Your task to perform on an android device: clear all cookies in the chrome app Image 0: 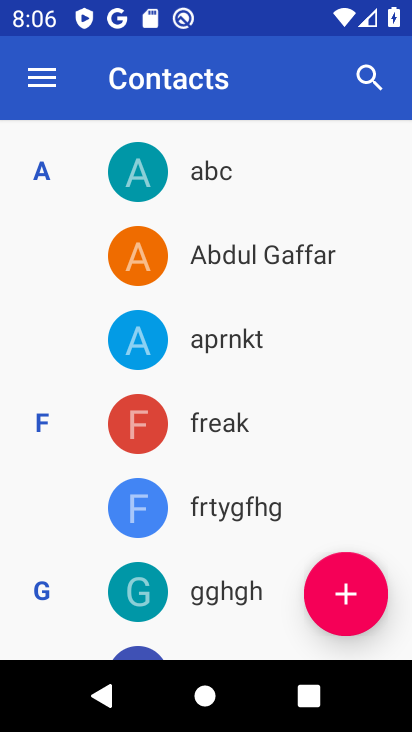
Step 0: press back button
Your task to perform on an android device: clear all cookies in the chrome app Image 1: 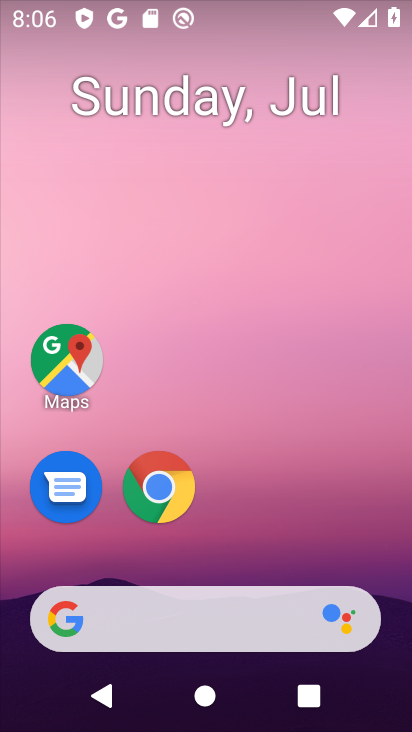
Step 1: click (177, 483)
Your task to perform on an android device: clear all cookies in the chrome app Image 2: 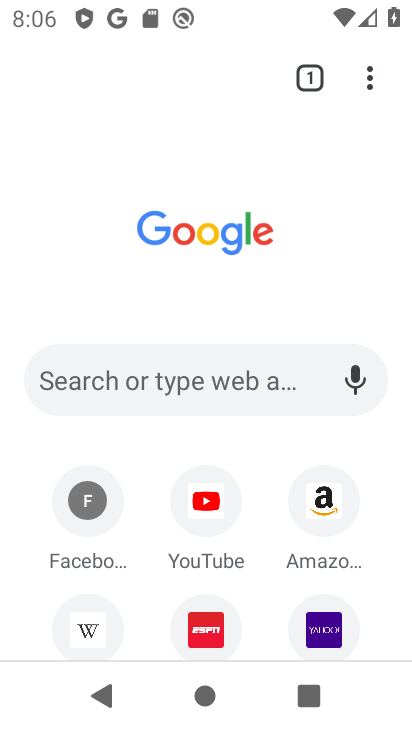
Step 2: drag from (370, 68) to (89, 530)
Your task to perform on an android device: clear all cookies in the chrome app Image 3: 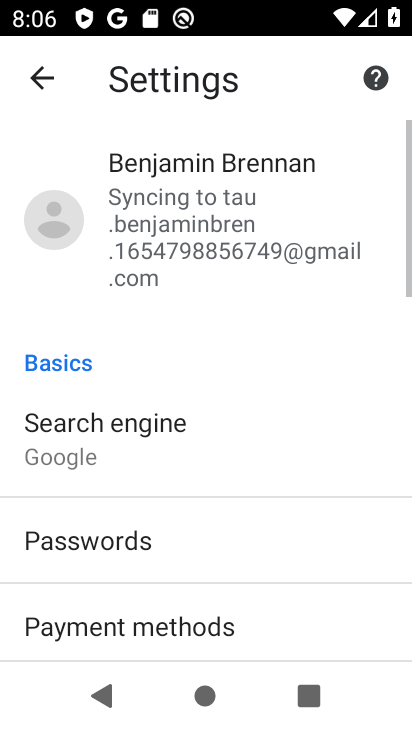
Step 3: click (26, 70)
Your task to perform on an android device: clear all cookies in the chrome app Image 4: 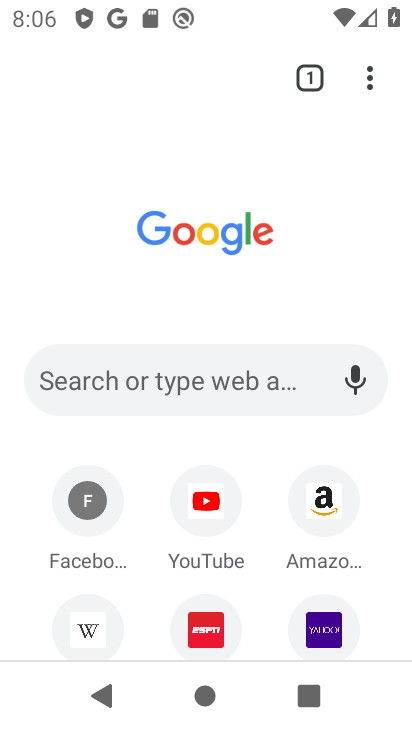
Step 4: drag from (373, 70) to (107, 452)
Your task to perform on an android device: clear all cookies in the chrome app Image 5: 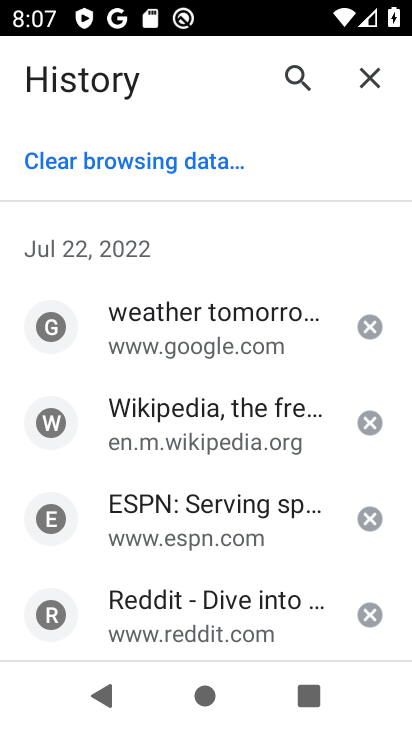
Step 5: click (97, 159)
Your task to perform on an android device: clear all cookies in the chrome app Image 6: 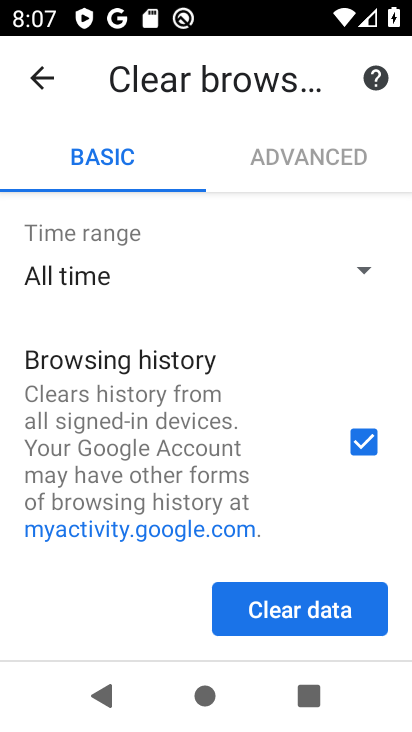
Step 6: drag from (172, 529) to (234, 377)
Your task to perform on an android device: clear all cookies in the chrome app Image 7: 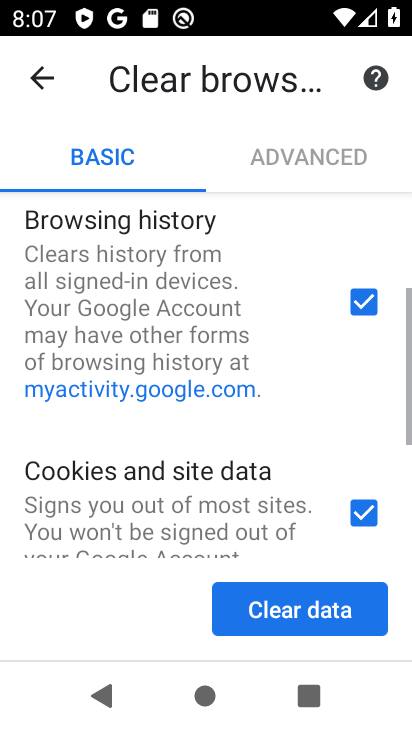
Step 7: click (361, 297)
Your task to perform on an android device: clear all cookies in the chrome app Image 8: 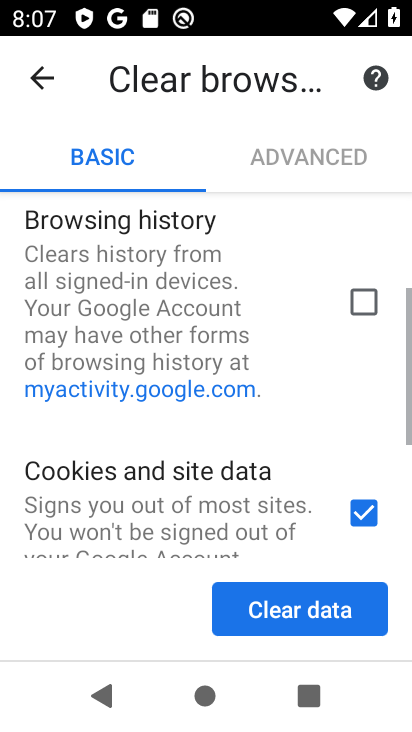
Step 8: drag from (121, 515) to (229, 169)
Your task to perform on an android device: clear all cookies in the chrome app Image 9: 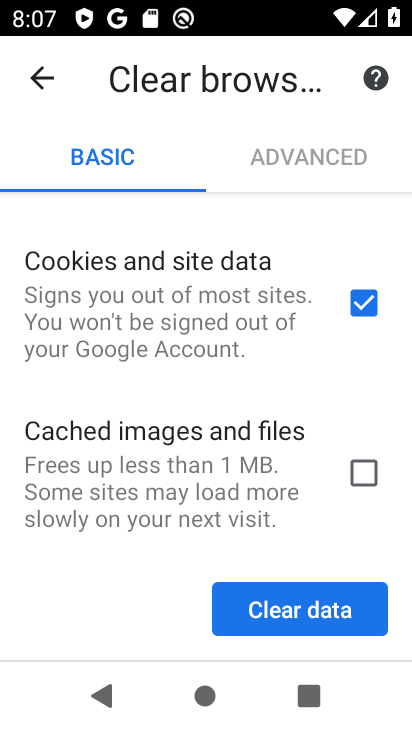
Step 9: click (289, 612)
Your task to perform on an android device: clear all cookies in the chrome app Image 10: 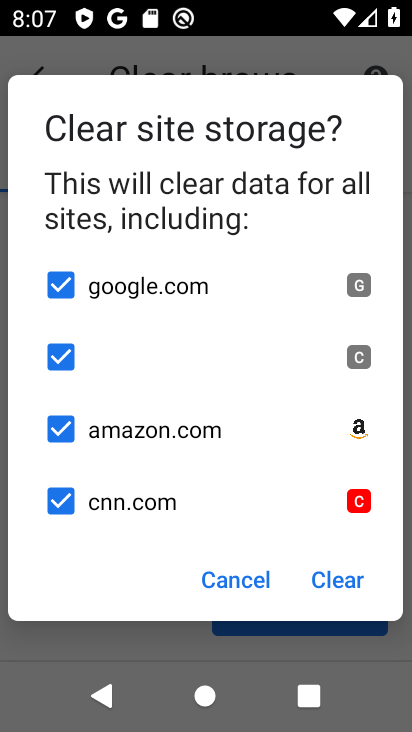
Step 10: click (360, 578)
Your task to perform on an android device: clear all cookies in the chrome app Image 11: 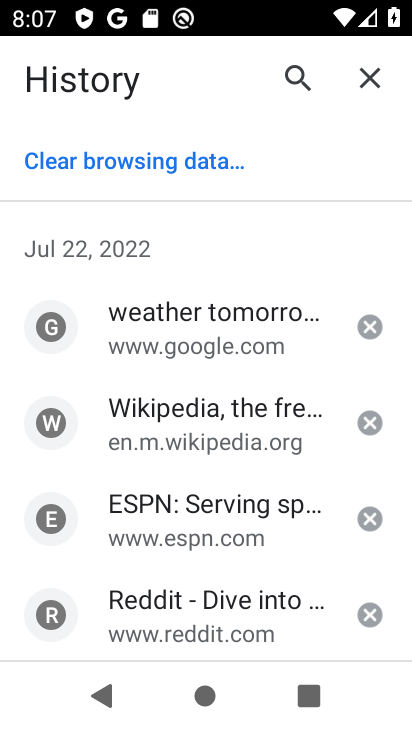
Step 11: task complete